Your task to perform on an android device: delete the emails in spam in the gmail app Image 0: 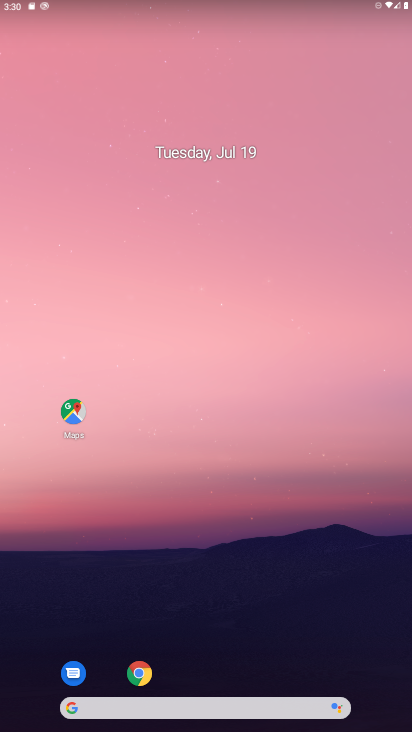
Step 0: drag from (216, 673) to (203, 4)
Your task to perform on an android device: delete the emails in spam in the gmail app Image 1: 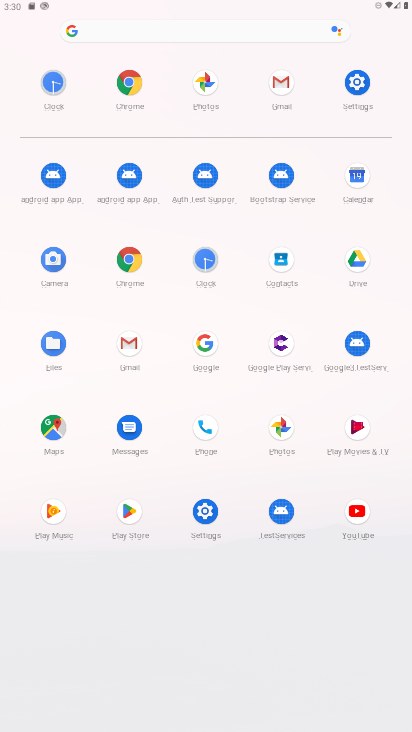
Step 1: click (136, 357)
Your task to perform on an android device: delete the emails in spam in the gmail app Image 2: 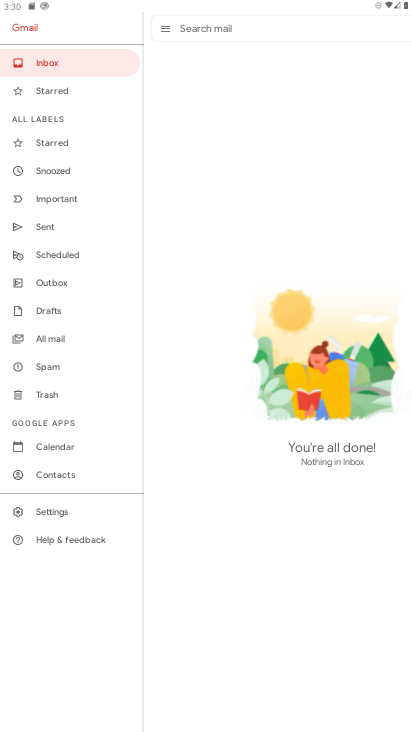
Step 2: click (48, 366)
Your task to perform on an android device: delete the emails in spam in the gmail app Image 3: 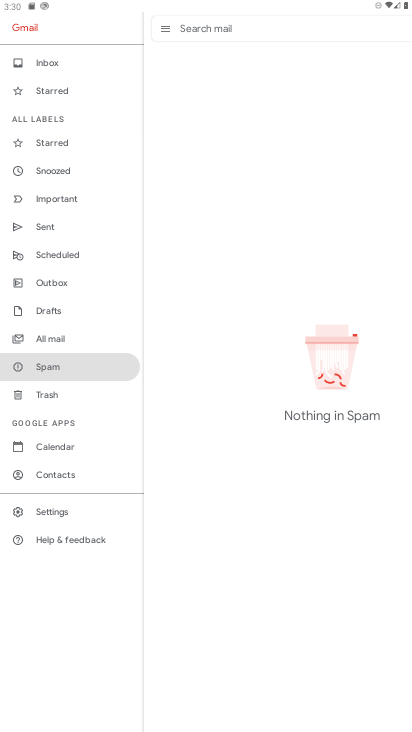
Step 3: task complete